Your task to perform on an android device: Open Google Maps and go to "Timeline" Image 0: 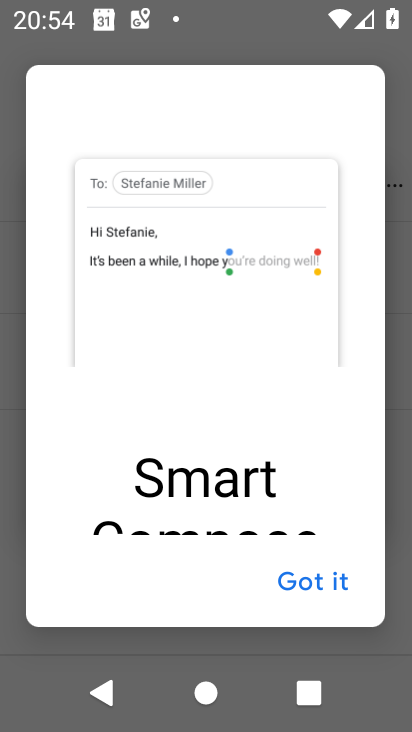
Step 0: click (326, 583)
Your task to perform on an android device: Open Google Maps and go to "Timeline" Image 1: 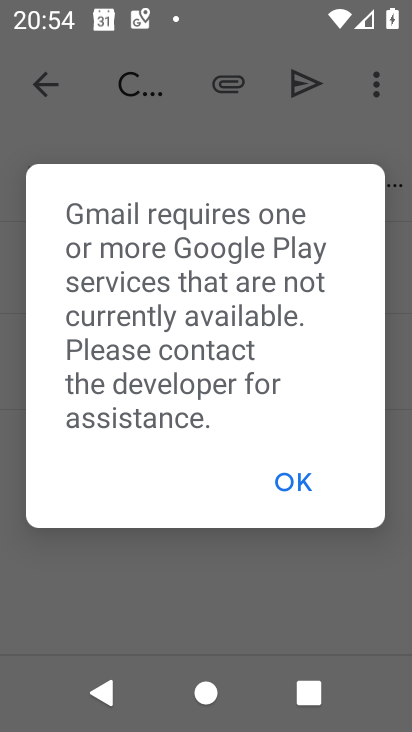
Step 1: click (291, 489)
Your task to perform on an android device: Open Google Maps and go to "Timeline" Image 2: 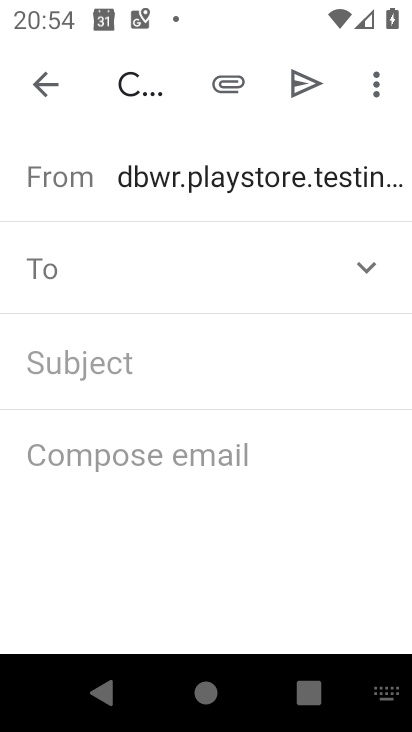
Step 2: press home button
Your task to perform on an android device: Open Google Maps and go to "Timeline" Image 3: 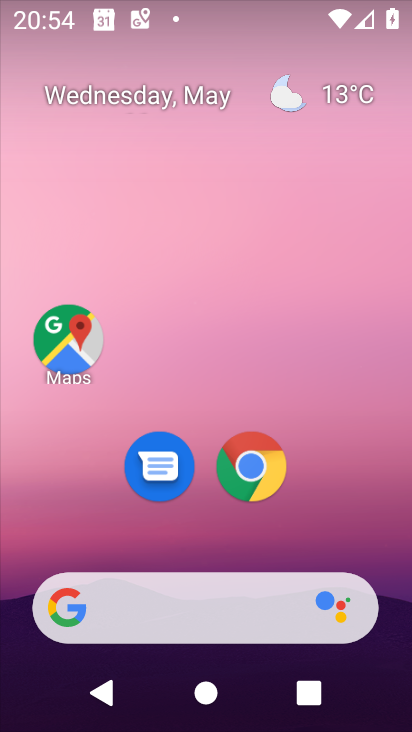
Step 3: drag from (202, 538) to (197, 64)
Your task to perform on an android device: Open Google Maps and go to "Timeline" Image 4: 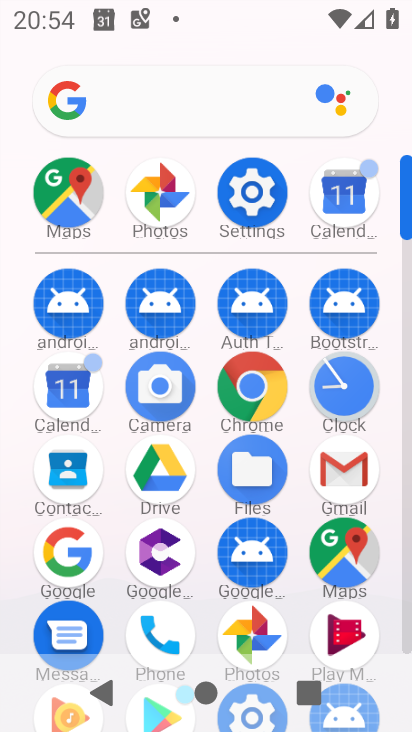
Step 4: click (68, 186)
Your task to perform on an android device: Open Google Maps and go to "Timeline" Image 5: 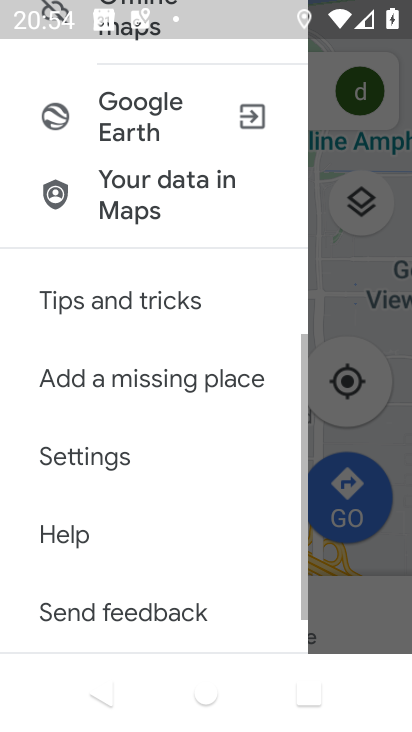
Step 5: drag from (138, 293) to (153, 599)
Your task to perform on an android device: Open Google Maps and go to "Timeline" Image 6: 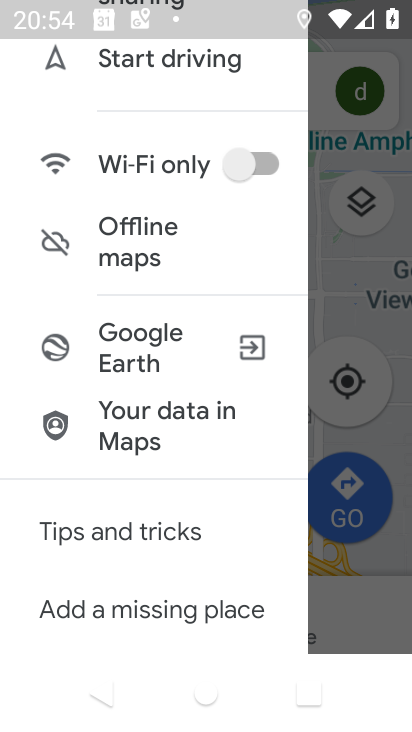
Step 6: drag from (144, 97) to (121, 598)
Your task to perform on an android device: Open Google Maps and go to "Timeline" Image 7: 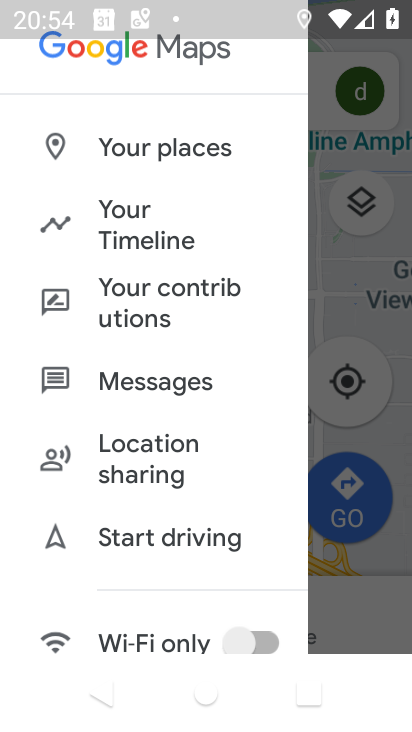
Step 7: click (83, 217)
Your task to perform on an android device: Open Google Maps and go to "Timeline" Image 8: 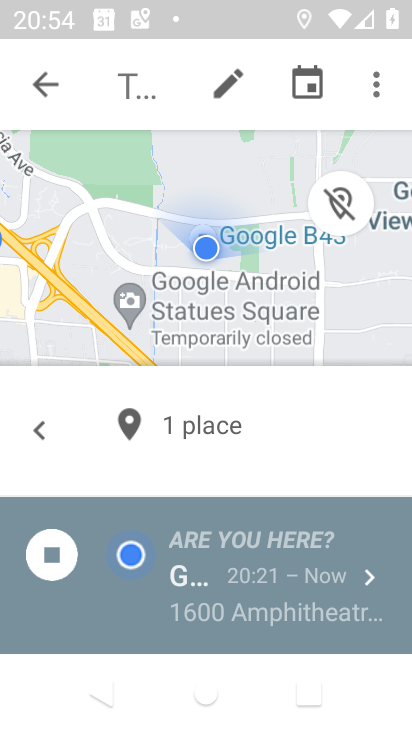
Step 8: task complete